Your task to perform on an android device: check android version Image 0: 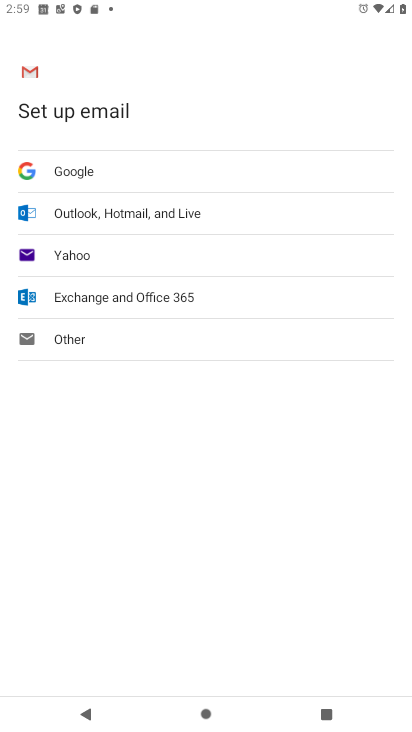
Step 0: press home button
Your task to perform on an android device: check android version Image 1: 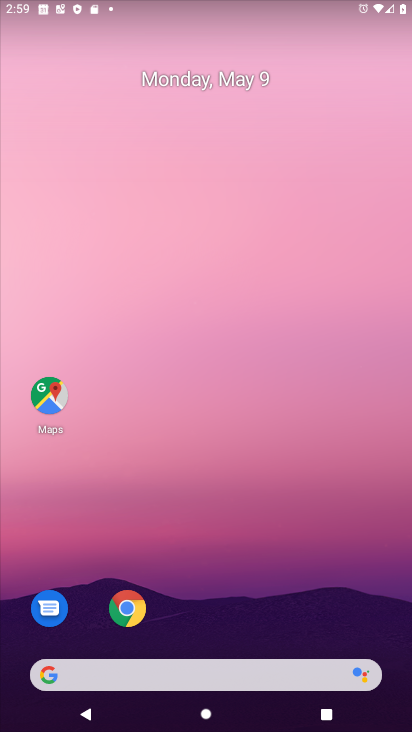
Step 1: drag from (208, 615) to (113, 19)
Your task to perform on an android device: check android version Image 2: 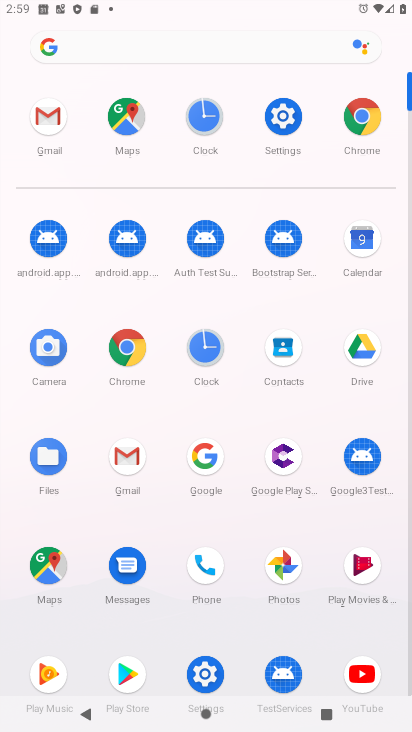
Step 2: click (282, 146)
Your task to perform on an android device: check android version Image 3: 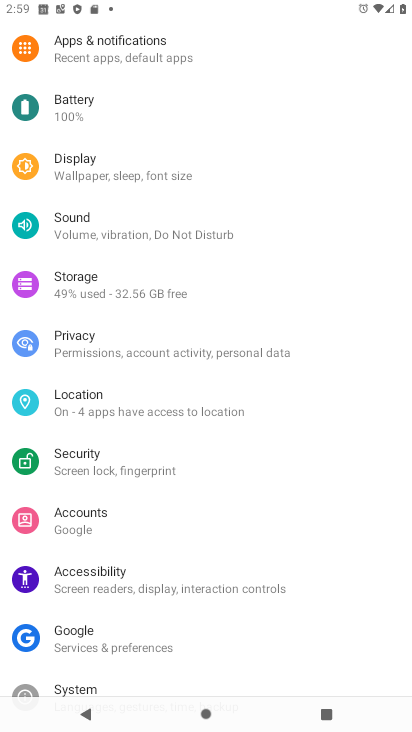
Step 3: drag from (66, 632) to (263, 55)
Your task to perform on an android device: check android version Image 4: 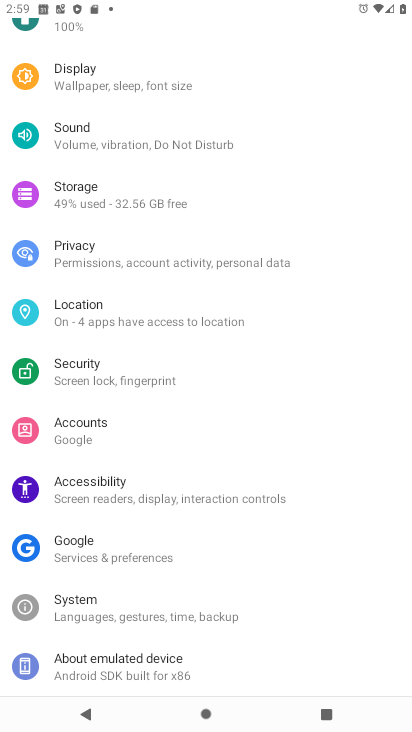
Step 4: click (142, 691)
Your task to perform on an android device: check android version Image 5: 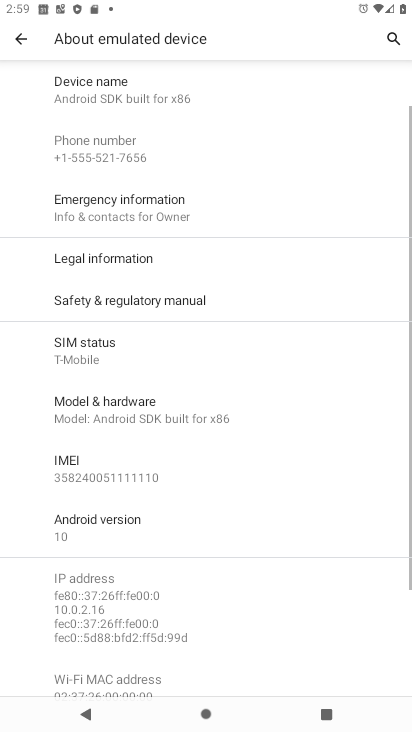
Step 5: click (162, 532)
Your task to perform on an android device: check android version Image 6: 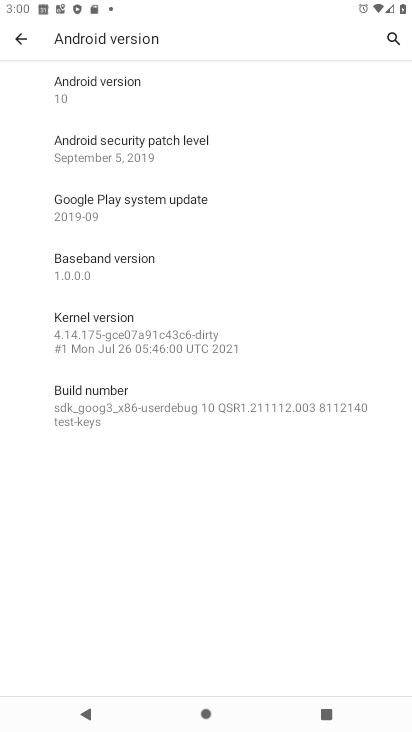
Step 6: task complete